Your task to perform on an android device: Search for seafood restaurants on Google Maps Image 0: 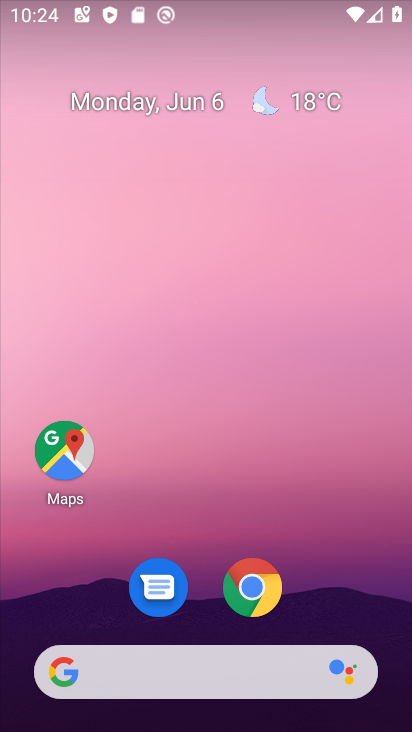
Step 0: click (73, 455)
Your task to perform on an android device: Search for seafood restaurants on Google Maps Image 1: 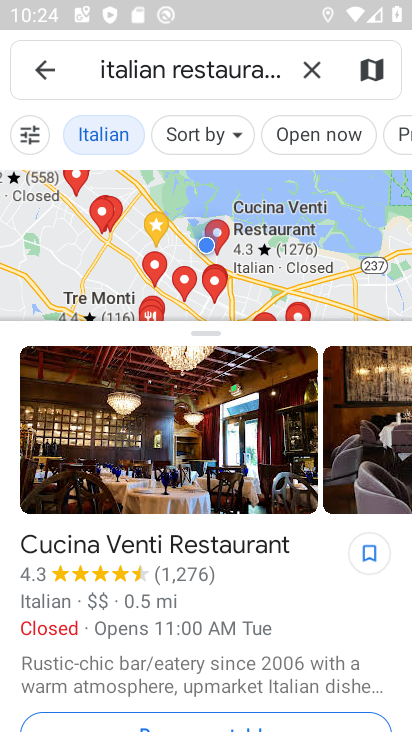
Step 1: click (301, 61)
Your task to perform on an android device: Search for seafood restaurants on Google Maps Image 2: 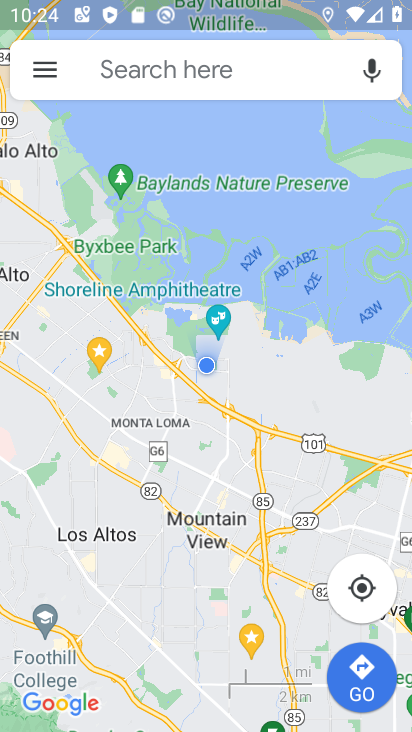
Step 2: click (173, 61)
Your task to perform on an android device: Search for seafood restaurants on Google Maps Image 3: 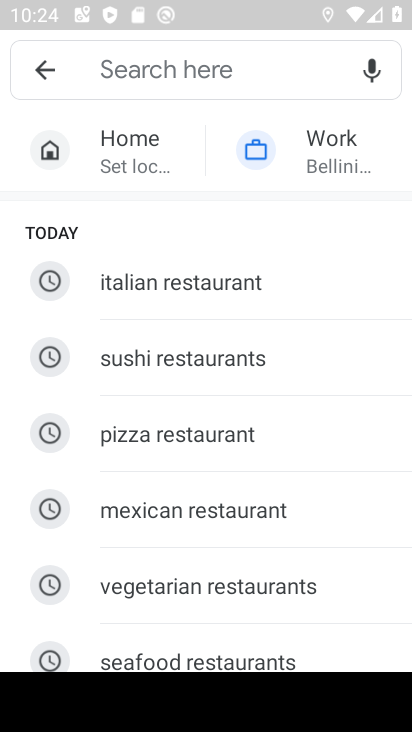
Step 3: click (223, 648)
Your task to perform on an android device: Search for seafood restaurants on Google Maps Image 4: 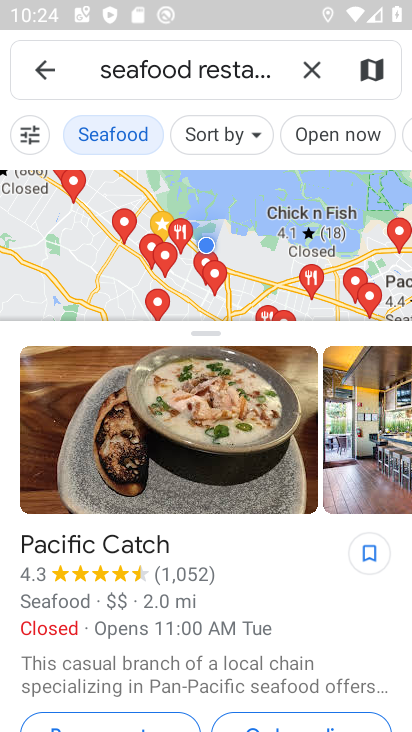
Step 4: task complete